Your task to perform on an android device: turn off improve location accuracy Image 0: 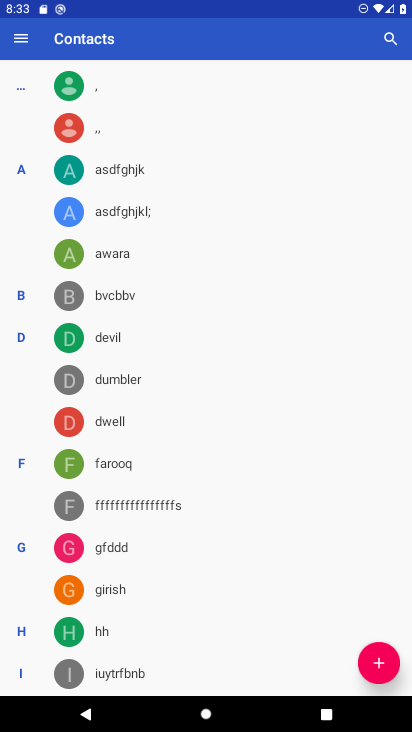
Step 0: press home button
Your task to perform on an android device: turn off improve location accuracy Image 1: 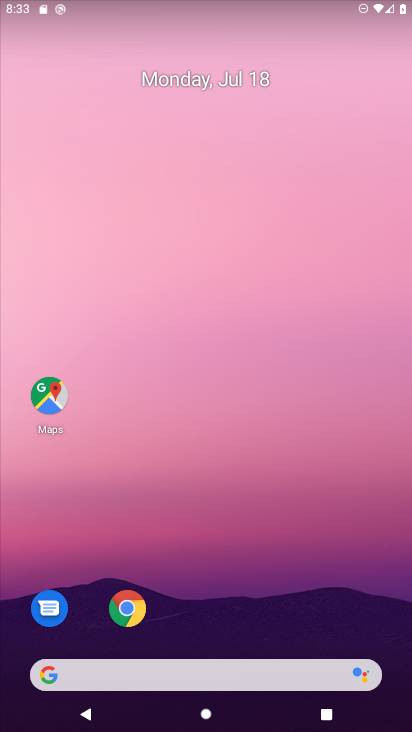
Step 1: drag from (224, 608) to (259, 53)
Your task to perform on an android device: turn off improve location accuracy Image 2: 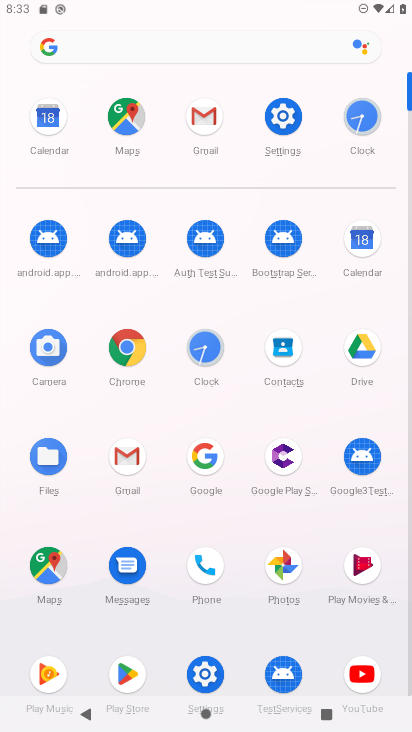
Step 2: click (275, 121)
Your task to perform on an android device: turn off improve location accuracy Image 3: 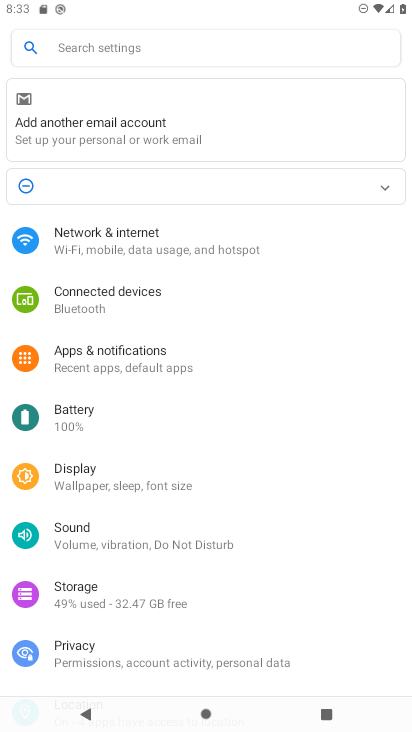
Step 3: drag from (140, 634) to (141, 436)
Your task to perform on an android device: turn off improve location accuracy Image 4: 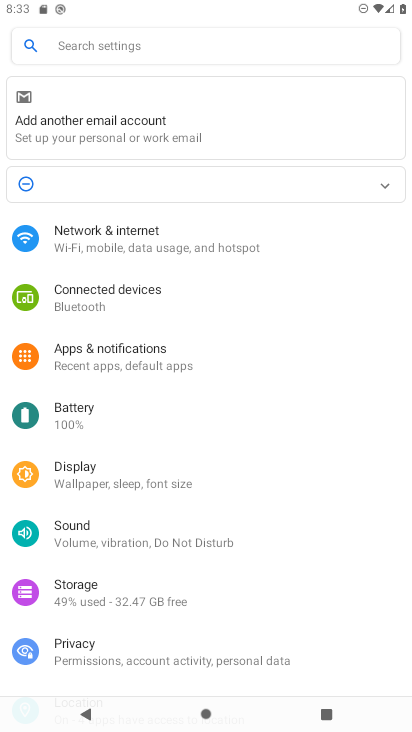
Step 4: drag from (119, 605) to (109, 111)
Your task to perform on an android device: turn off improve location accuracy Image 5: 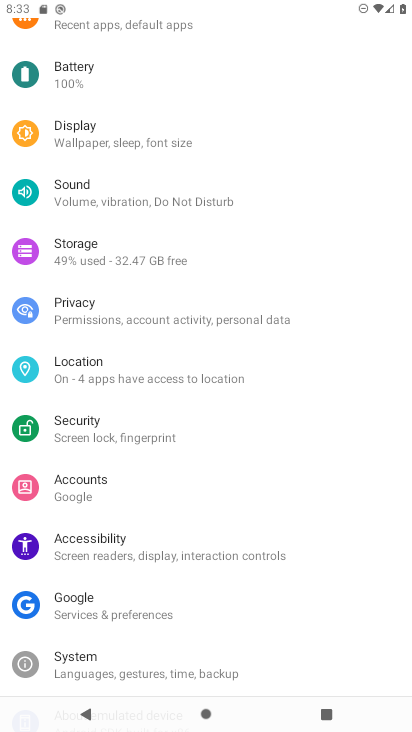
Step 5: click (88, 377)
Your task to perform on an android device: turn off improve location accuracy Image 6: 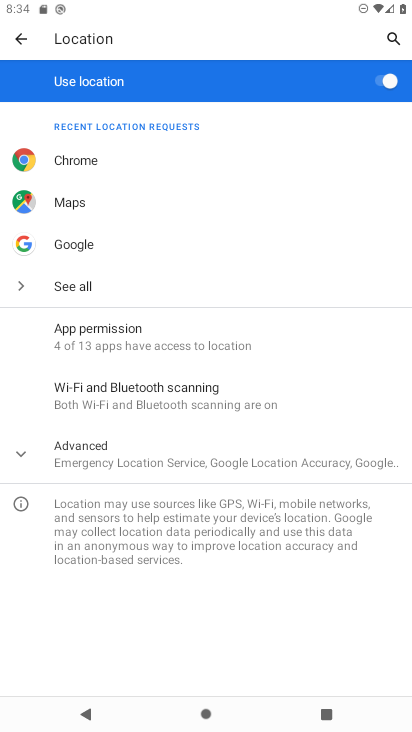
Step 6: click (124, 446)
Your task to perform on an android device: turn off improve location accuracy Image 7: 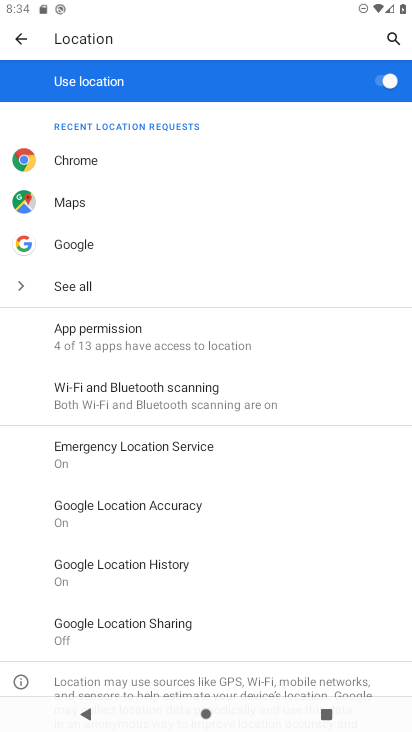
Step 7: click (117, 514)
Your task to perform on an android device: turn off improve location accuracy Image 8: 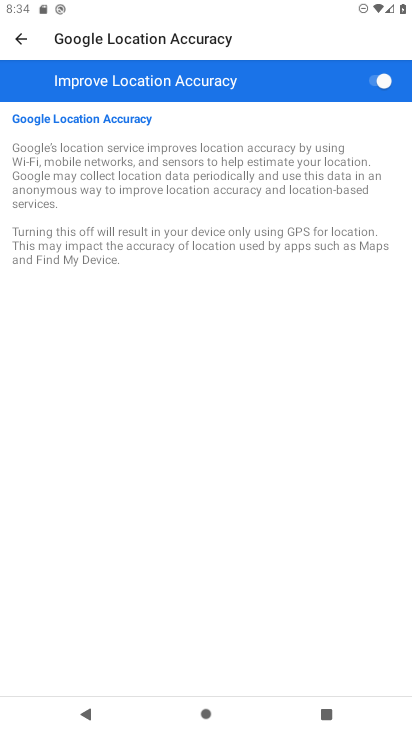
Step 8: click (390, 73)
Your task to perform on an android device: turn off improve location accuracy Image 9: 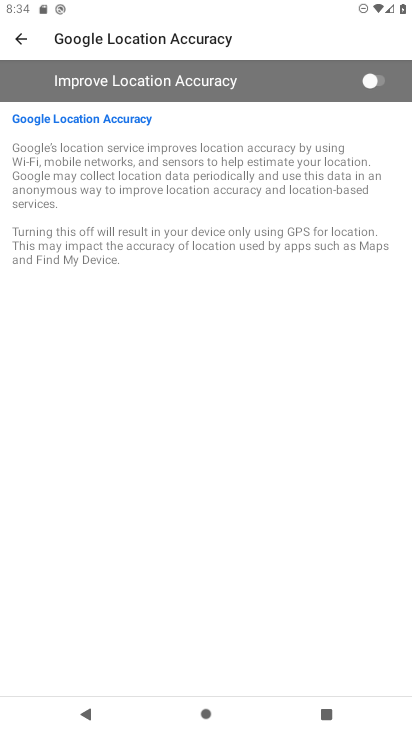
Step 9: task complete